Your task to perform on an android device: Add "logitech g pro" to the cart on walmart.com Image 0: 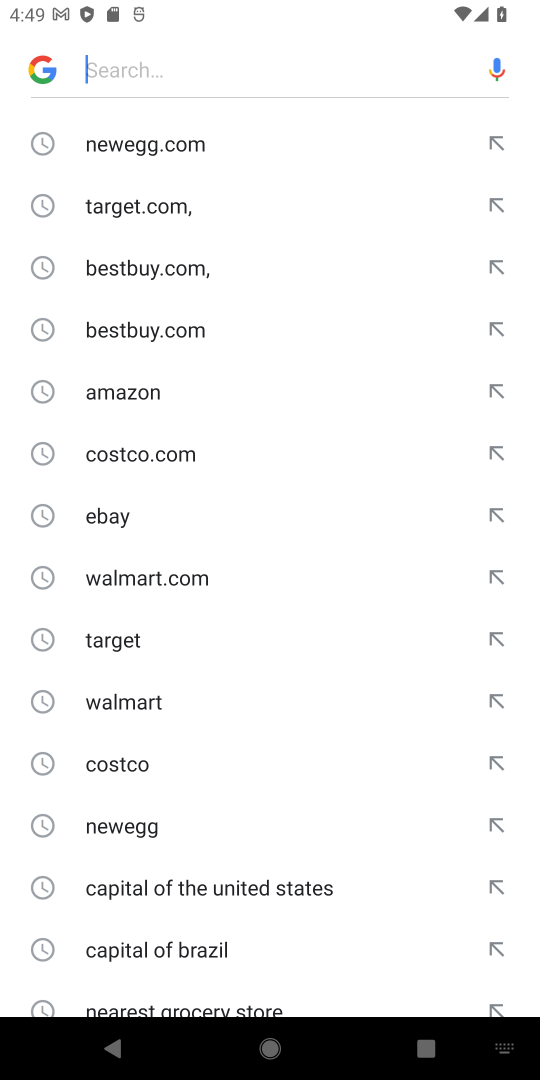
Step 0: press home button
Your task to perform on an android device: Add "logitech g pro" to the cart on walmart.com Image 1: 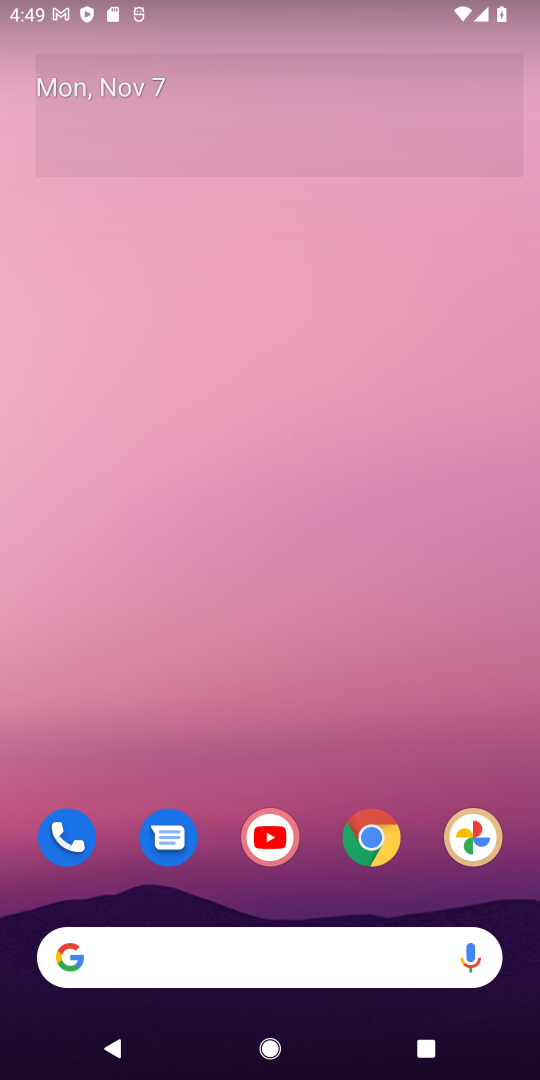
Step 1: click (383, 857)
Your task to perform on an android device: Add "logitech g pro" to the cart on walmart.com Image 2: 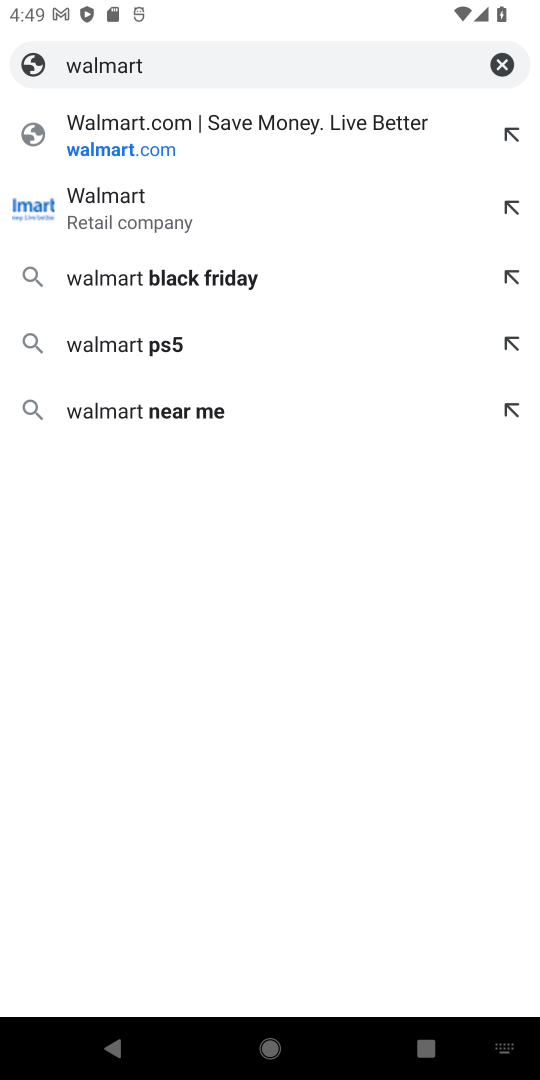
Step 2: click (202, 124)
Your task to perform on an android device: Add "logitech g pro" to the cart on walmart.com Image 3: 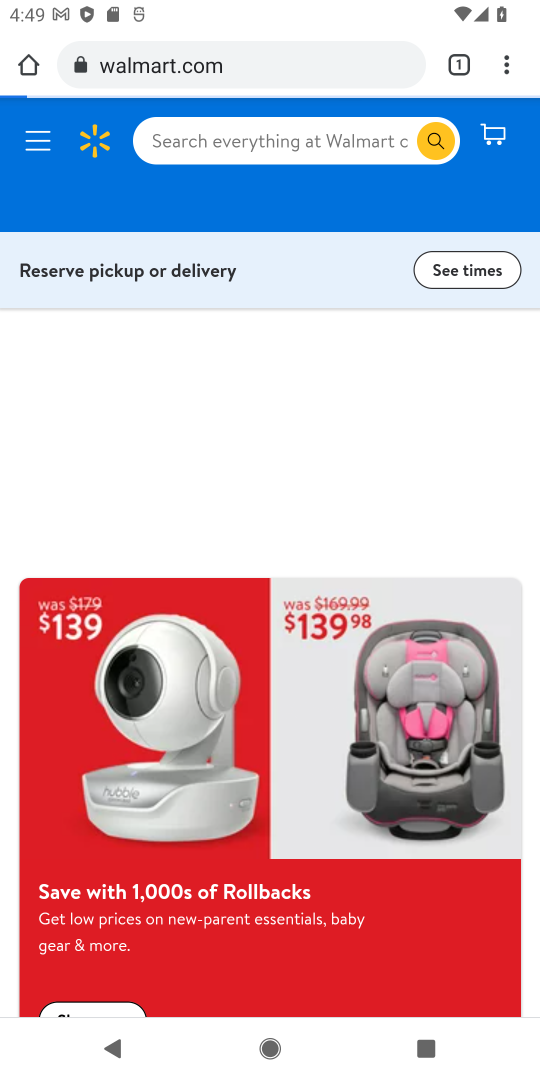
Step 3: click (233, 146)
Your task to perform on an android device: Add "logitech g pro" to the cart on walmart.com Image 4: 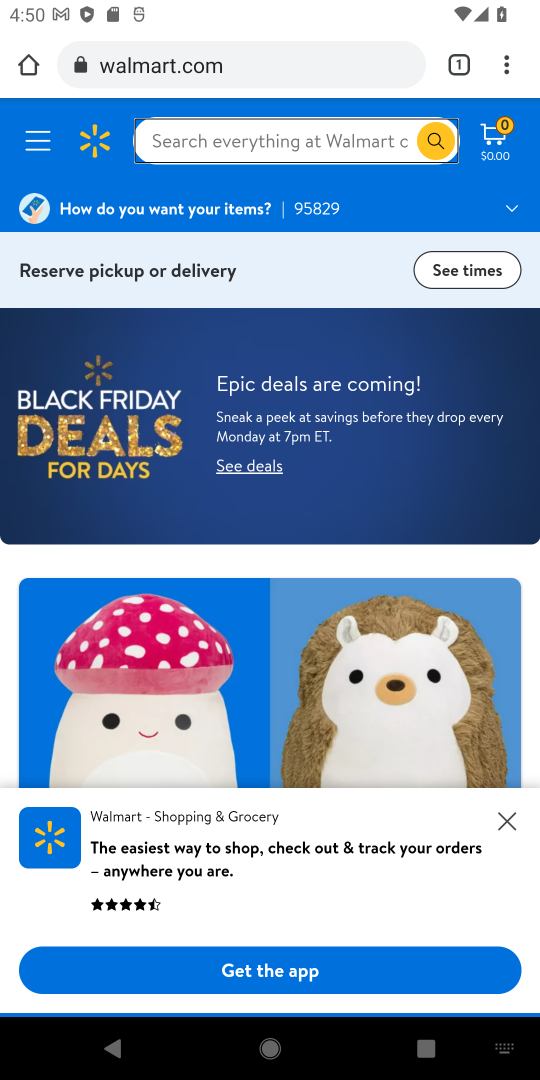
Step 4: type "logitech g pro"
Your task to perform on an android device: Add "logitech g pro" to the cart on walmart.com Image 5: 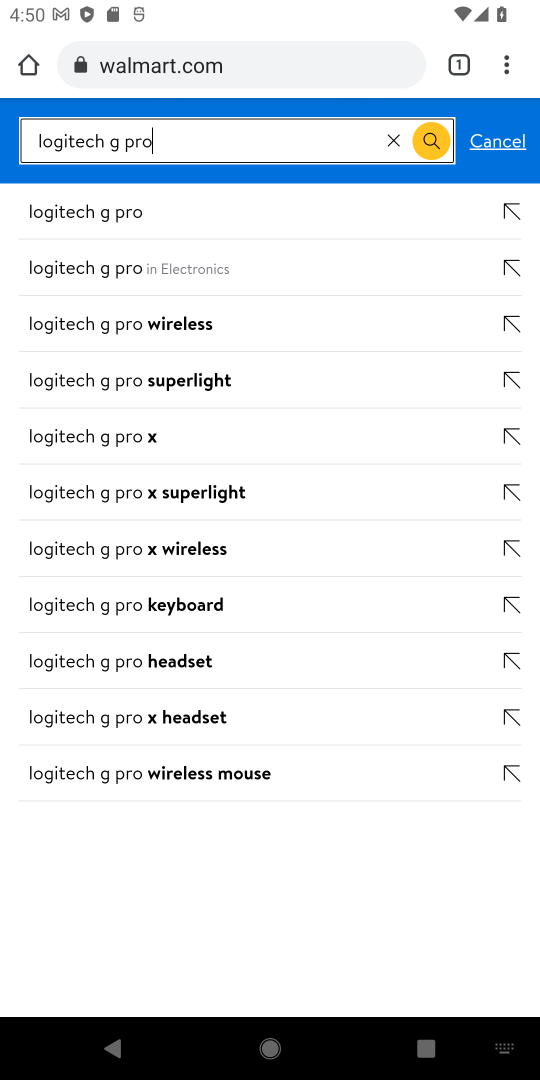
Step 5: click (235, 223)
Your task to perform on an android device: Add "logitech g pro" to the cart on walmart.com Image 6: 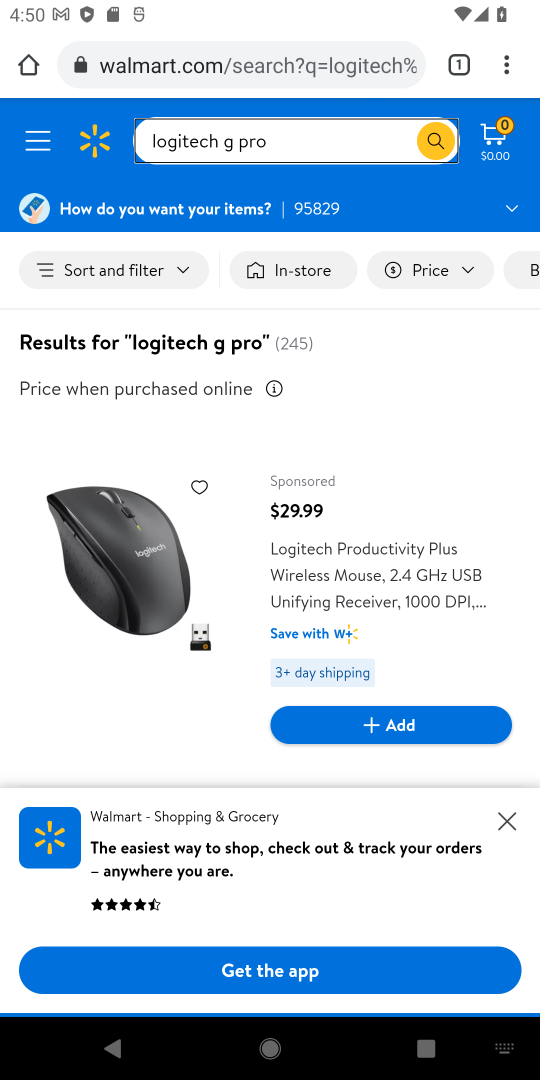
Step 6: click (392, 717)
Your task to perform on an android device: Add "logitech g pro" to the cart on walmart.com Image 7: 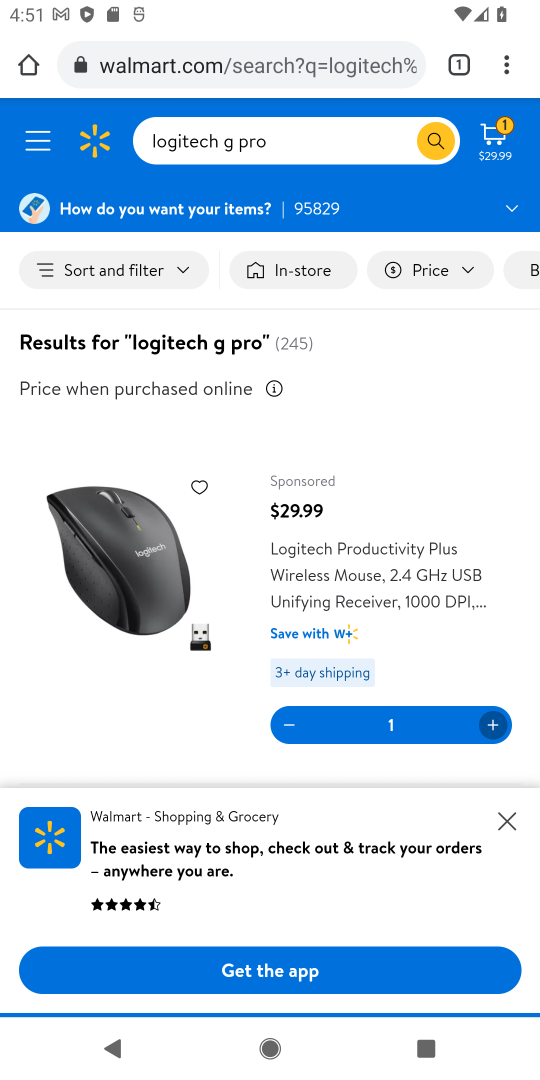
Step 7: click (509, 819)
Your task to perform on an android device: Add "logitech g pro" to the cart on walmart.com Image 8: 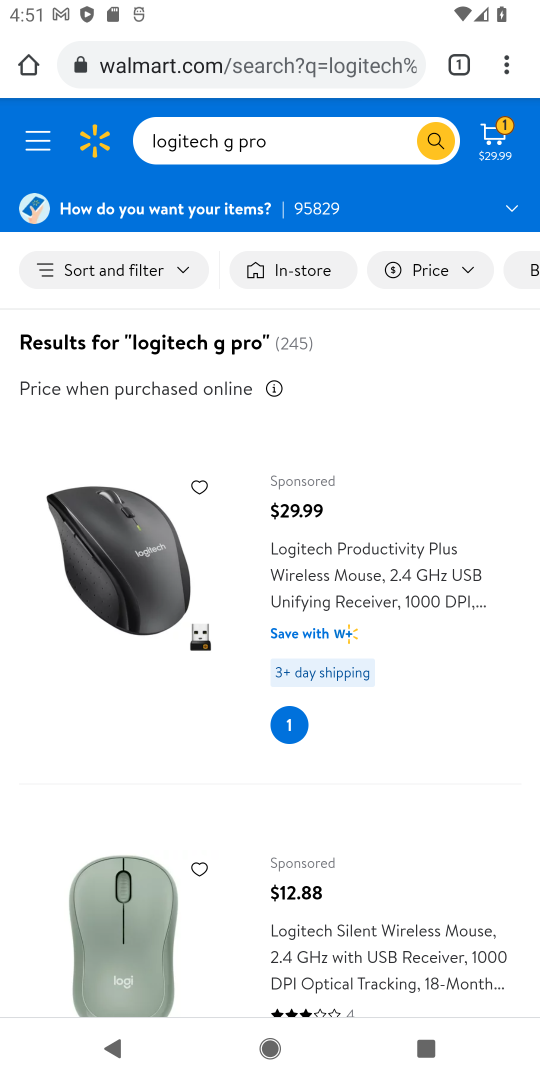
Step 8: click (504, 137)
Your task to perform on an android device: Add "logitech g pro" to the cart on walmart.com Image 9: 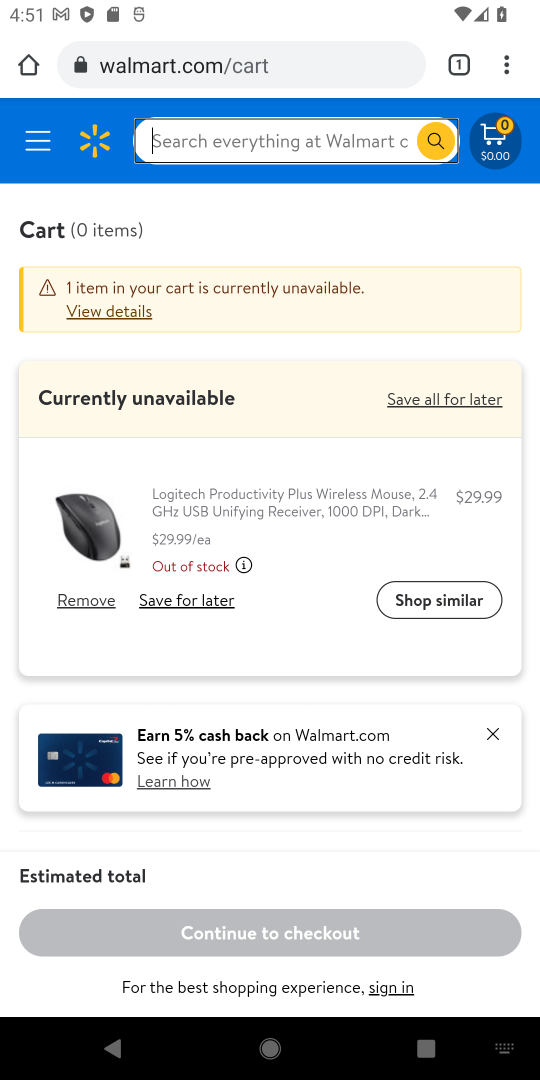
Step 9: task complete